Your task to perform on an android device: Go to Google maps Image 0: 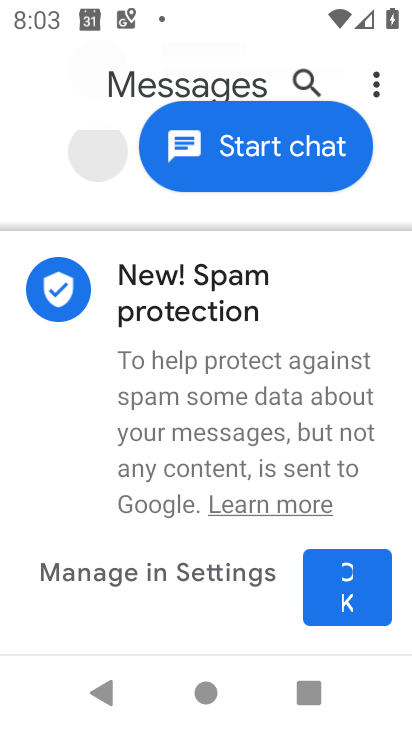
Step 0: press home button
Your task to perform on an android device: Go to Google maps Image 1: 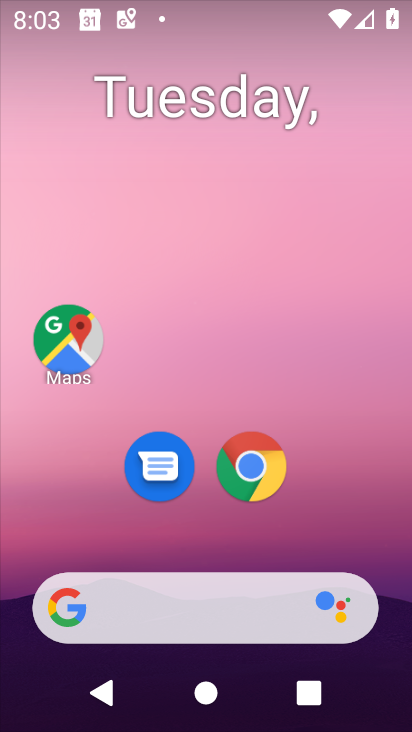
Step 1: click (44, 330)
Your task to perform on an android device: Go to Google maps Image 2: 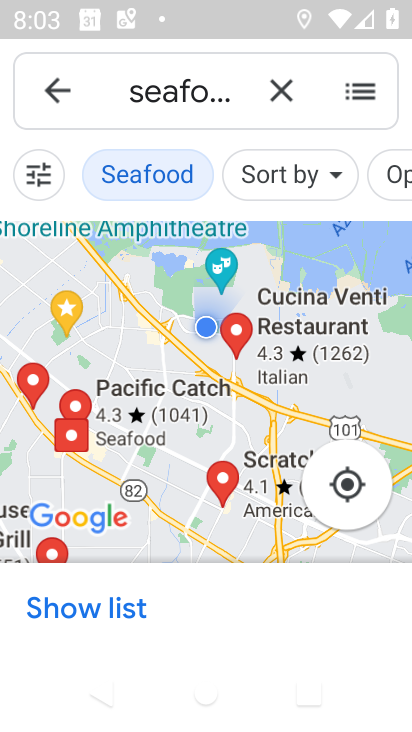
Step 2: task complete